Your task to perform on an android device: Open notification settings Image 0: 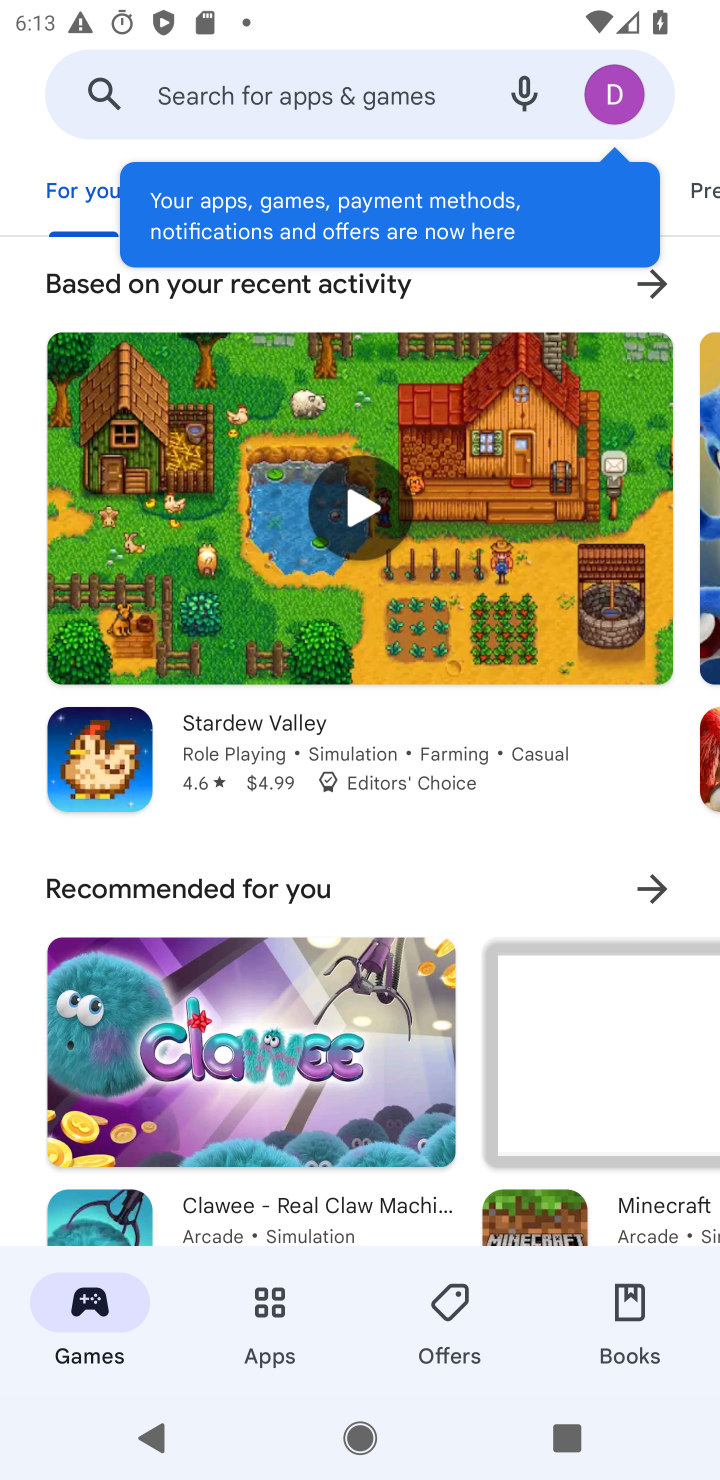
Step 0: press home button
Your task to perform on an android device: Open notification settings Image 1: 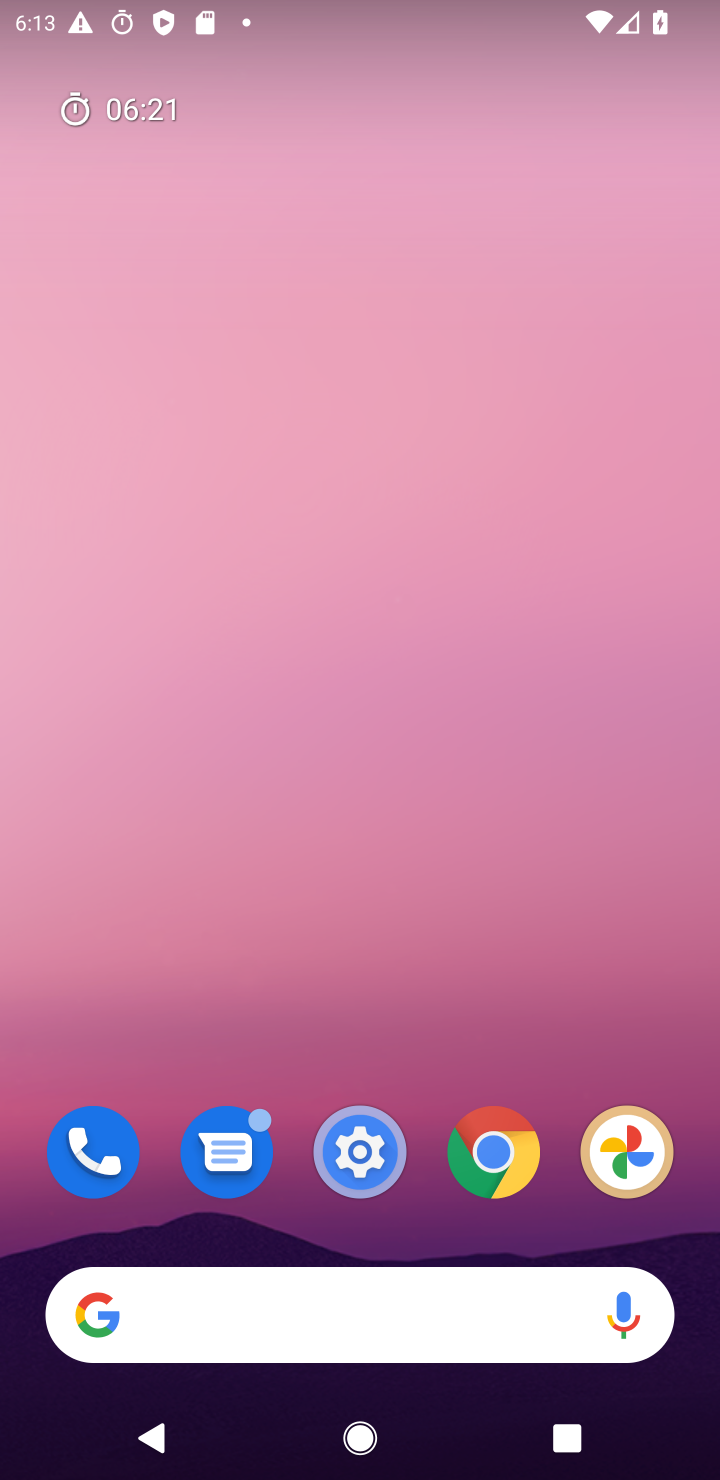
Step 1: drag from (389, 1212) to (411, 258)
Your task to perform on an android device: Open notification settings Image 2: 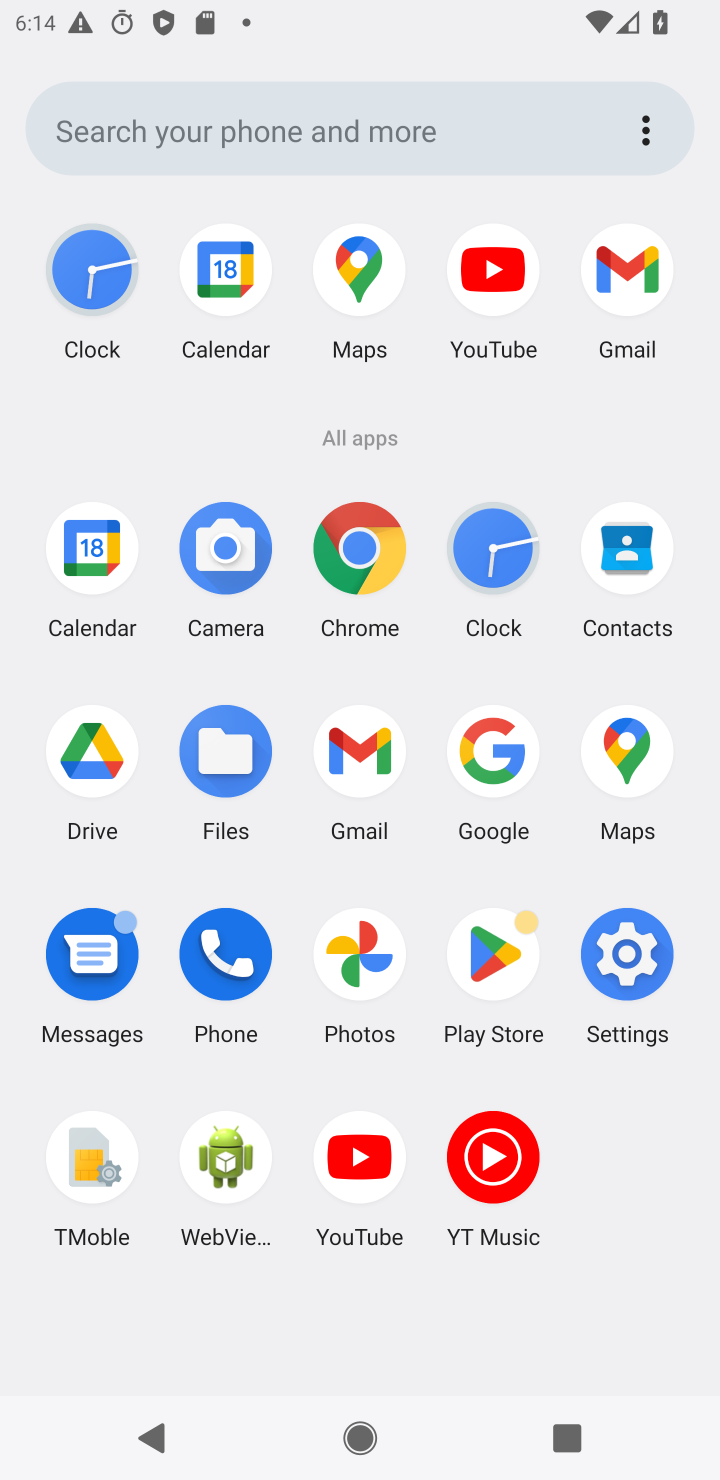
Step 2: click (630, 949)
Your task to perform on an android device: Open notification settings Image 3: 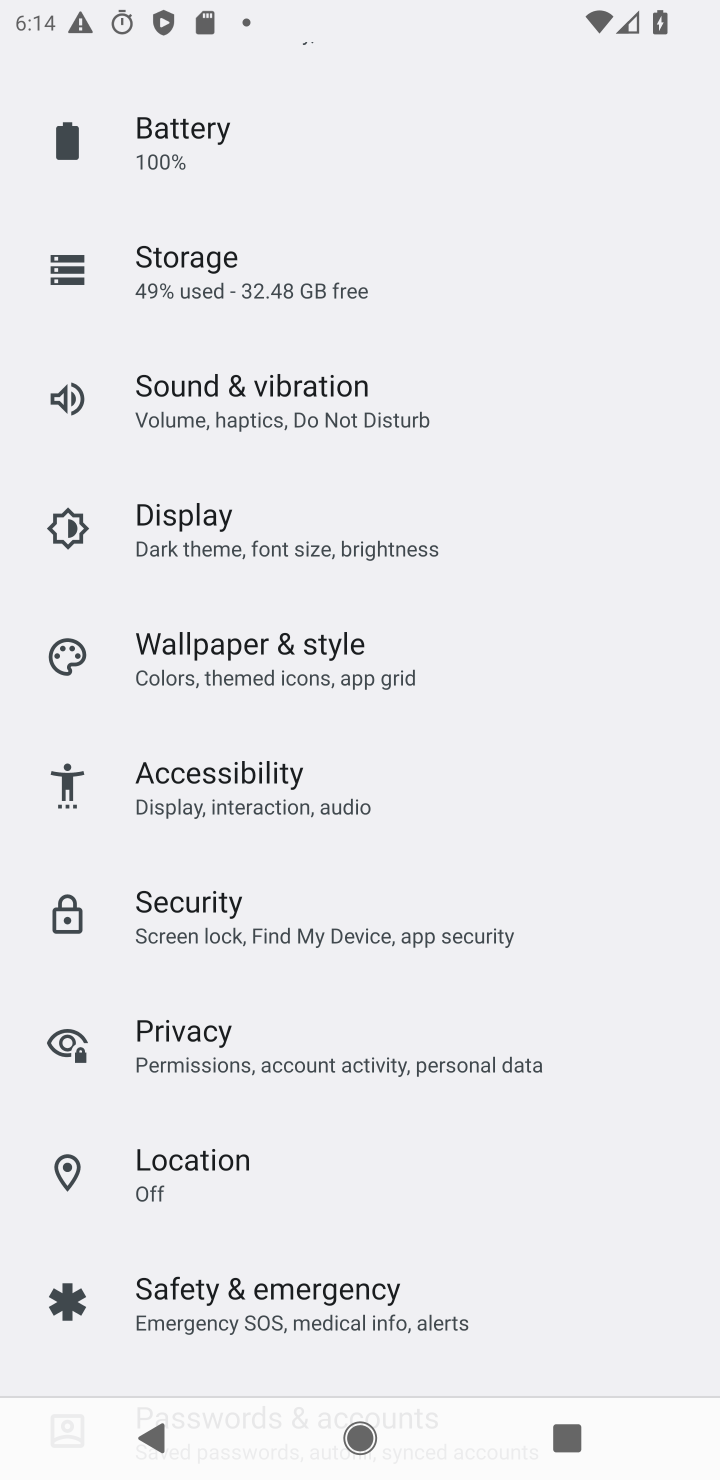
Step 3: drag from (306, 1088) to (461, 374)
Your task to perform on an android device: Open notification settings Image 4: 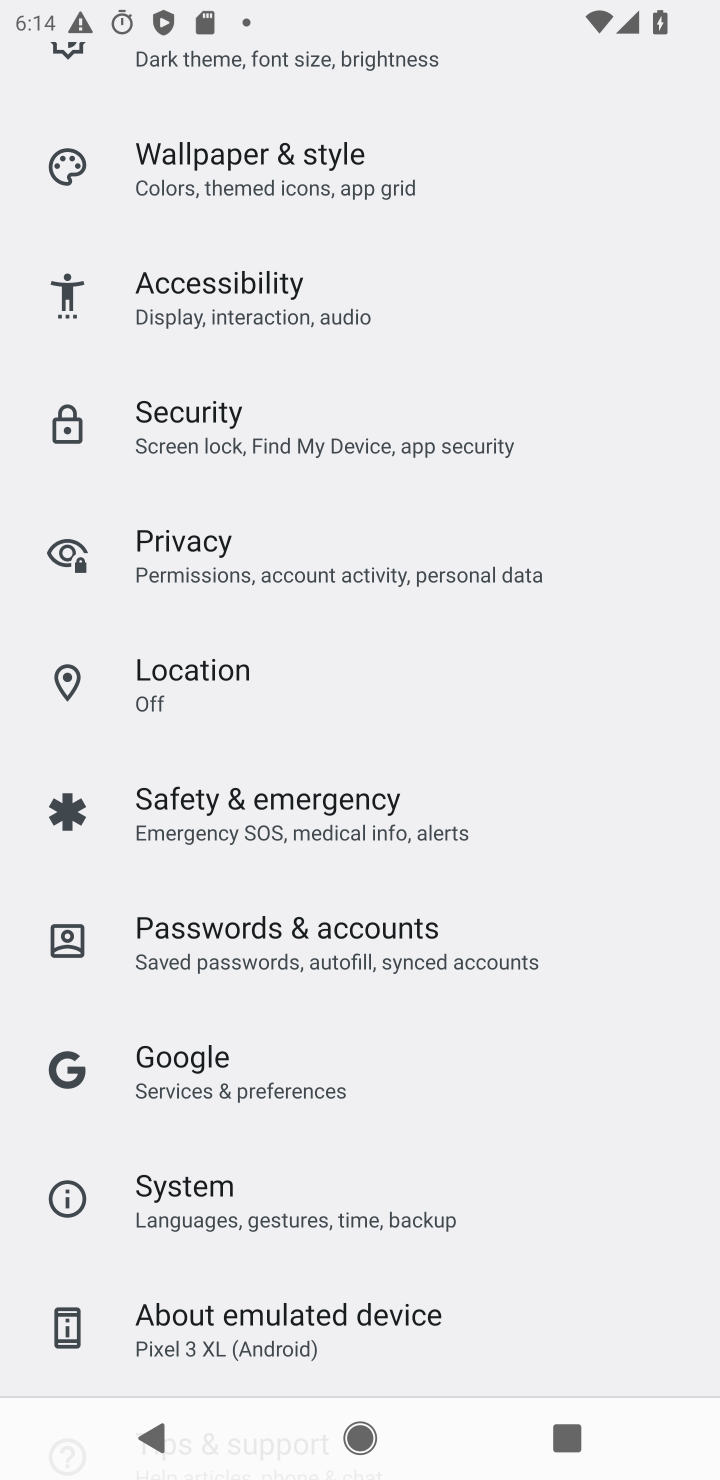
Step 4: drag from (406, 484) to (379, 1313)
Your task to perform on an android device: Open notification settings Image 5: 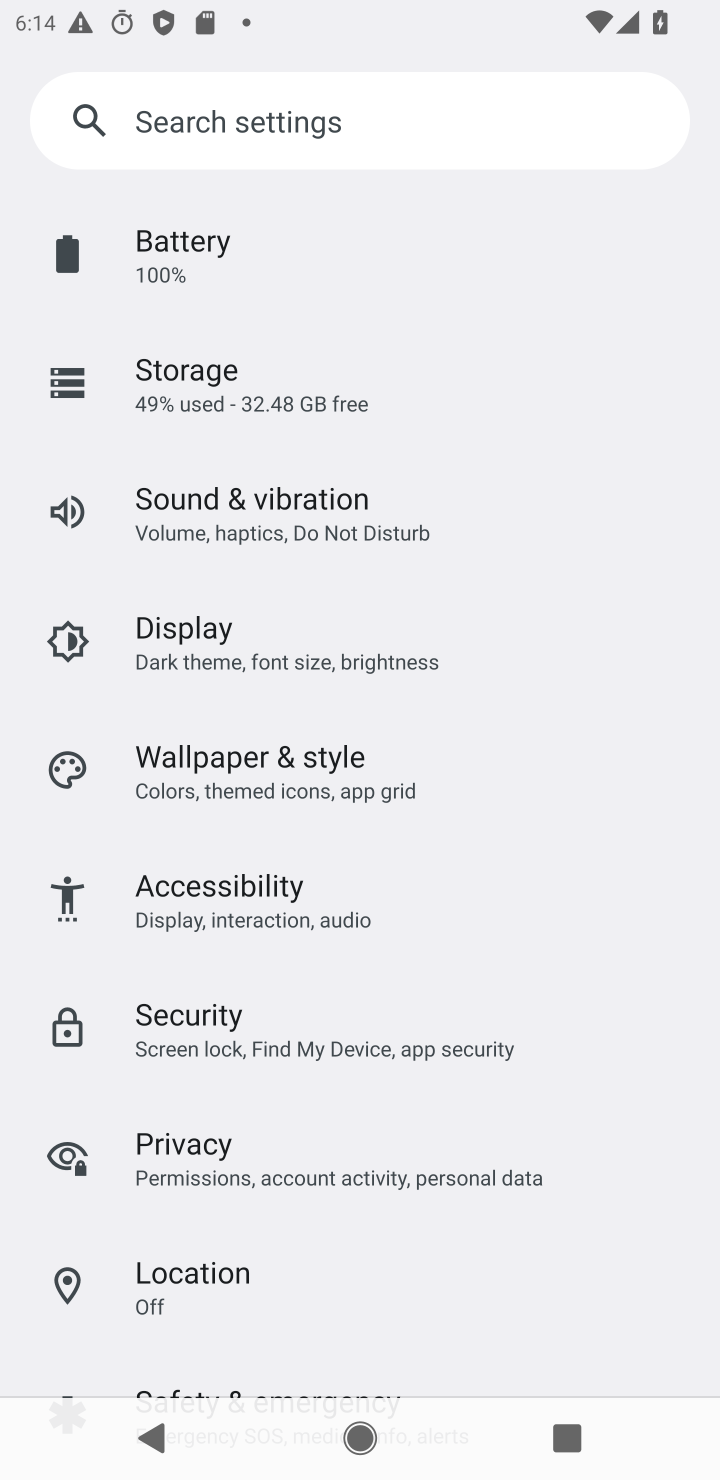
Step 5: drag from (293, 340) to (267, 1334)
Your task to perform on an android device: Open notification settings Image 6: 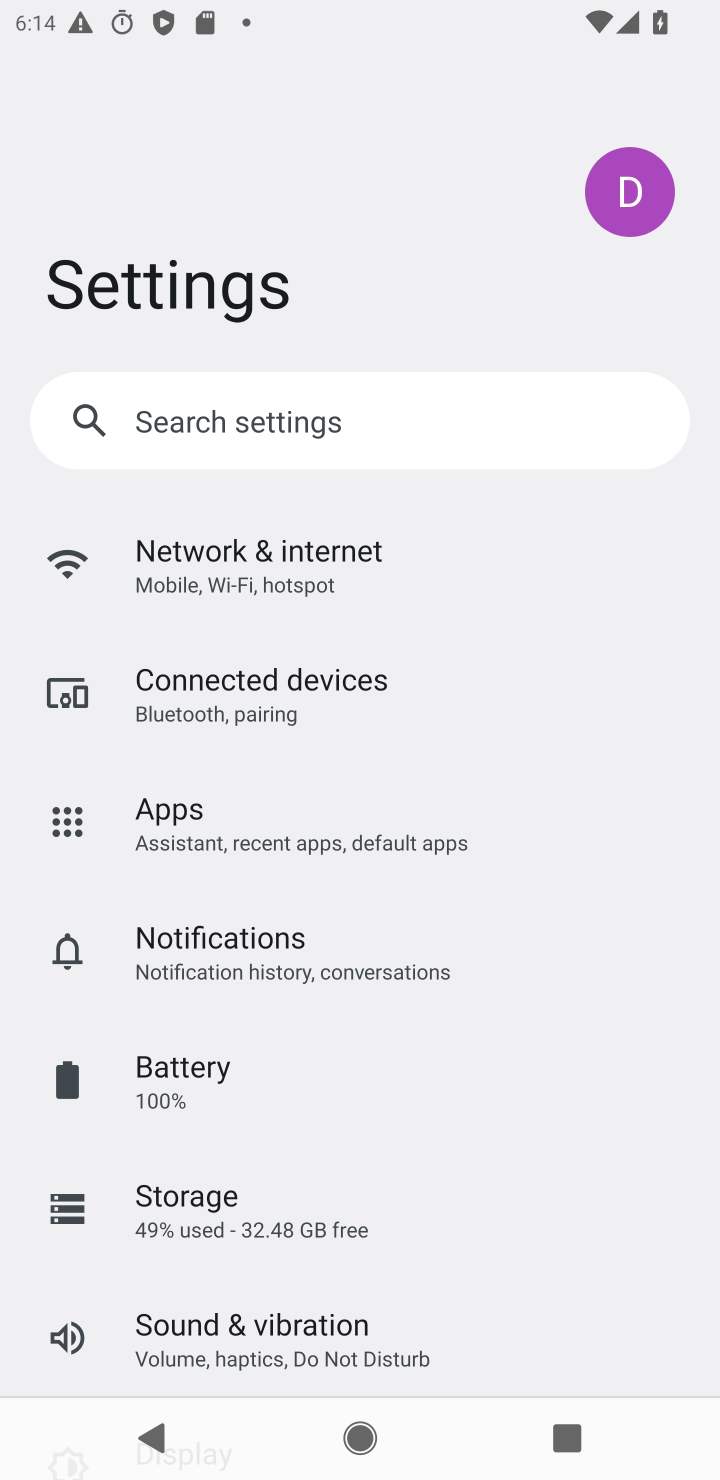
Step 6: click (255, 566)
Your task to perform on an android device: Open notification settings Image 7: 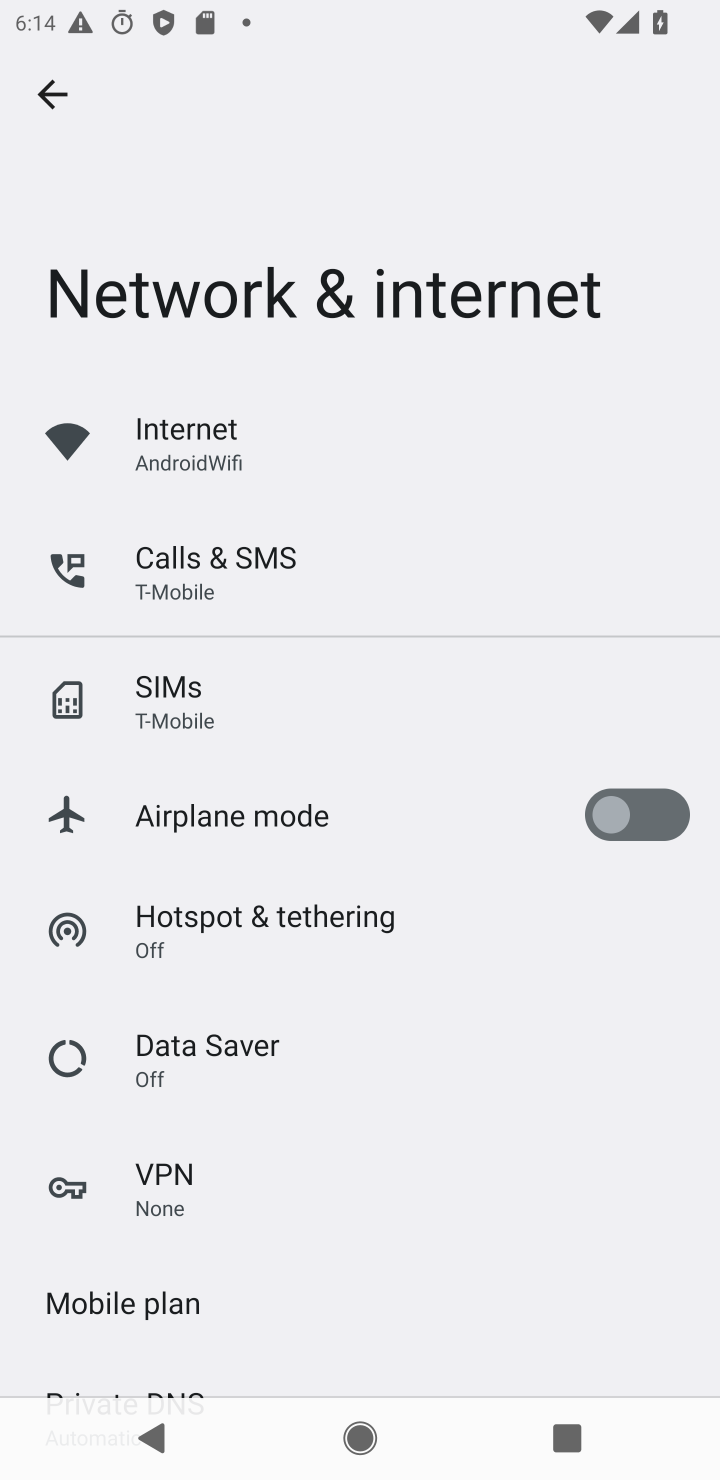
Step 7: task complete